Your task to perform on an android device: Open internet settings Image 0: 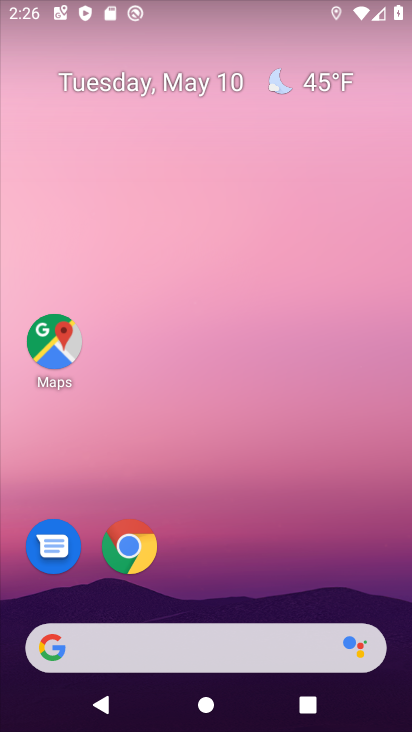
Step 0: drag from (272, 562) to (238, 19)
Your task to perform on an android device: Open internet settings Image 1: 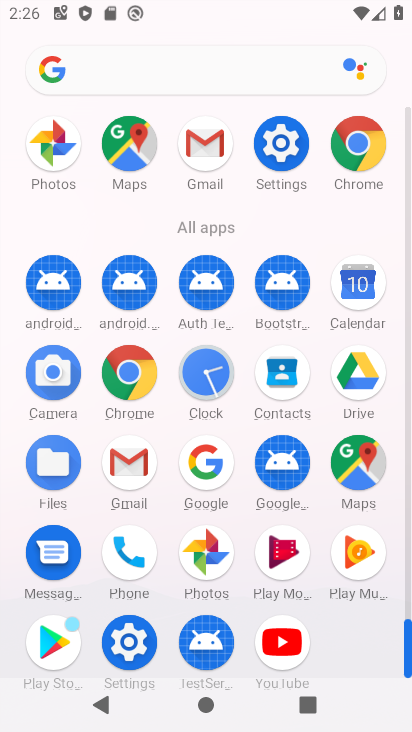
Step 1: click (128, 644)
Your task to perform on an android device: Open internet settings Image 2: 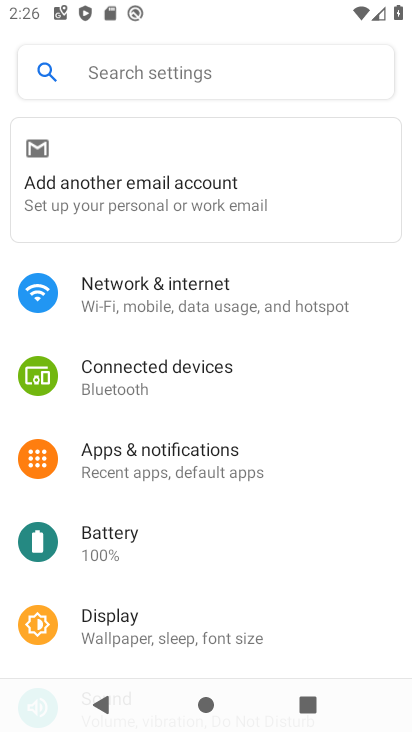
Step 2: click (200, 277)
Your task to perform on an android device: Open internet settings Image 3: 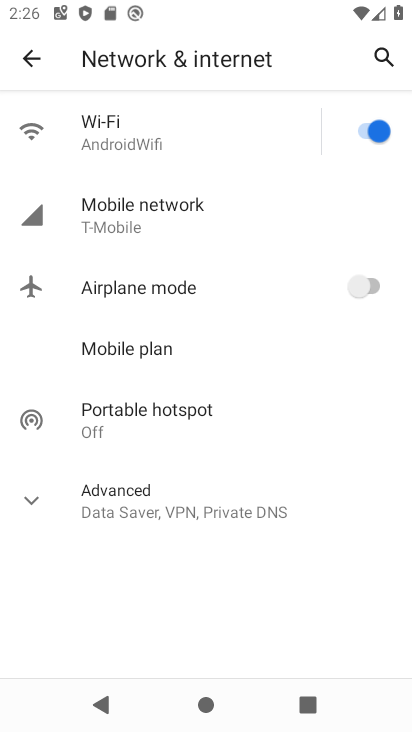
Step 3: click (19, 505)
Your task to perform on an android device: Open internet settings Image 4: 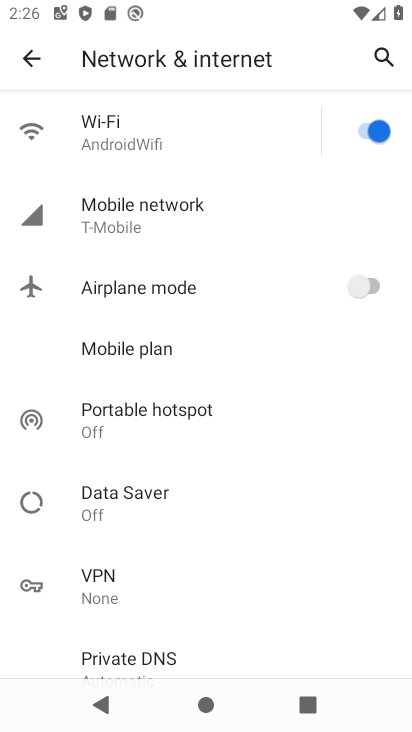
Step 4: task complete